Your task to perform on an android device: Go to accessibility settings Image 0: 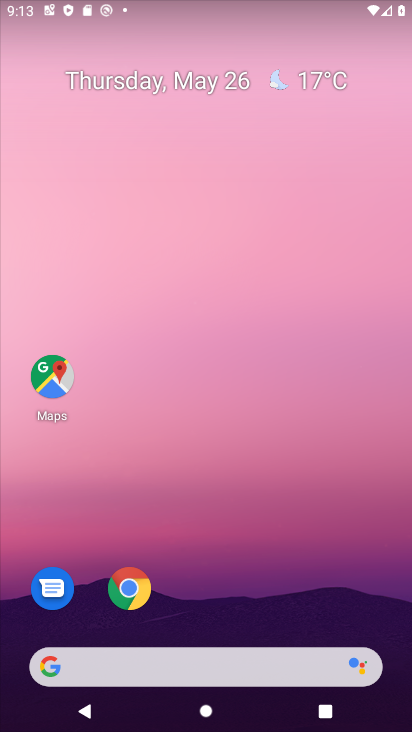
Step 0: drag from (364, 615) to (341, 168)
Your task to perform on an android device: Go to accessibility settings Image 1: 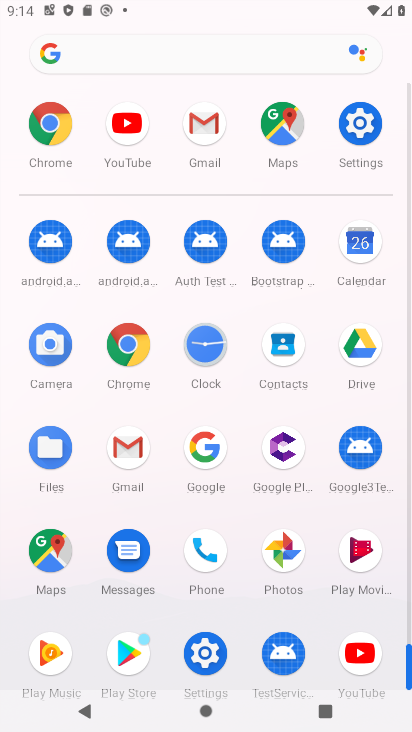
Step 1: click (199, 655)
Your task to perform on an android device: Go to accessibility settings Image 2: 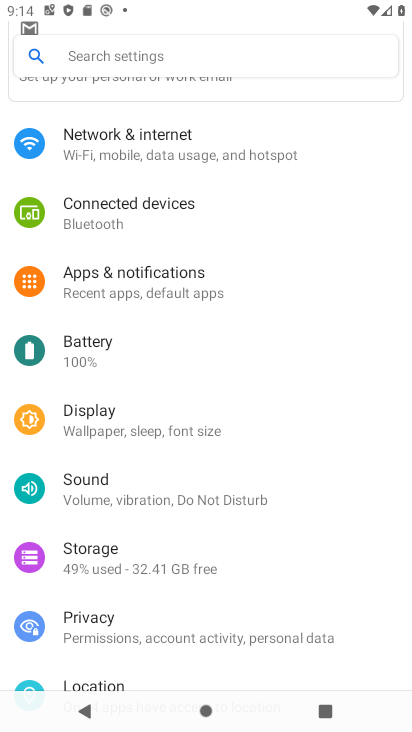
Step 2: drag from (286, 595) to (269, 195)
Your task to perform on an android device: Go to accessibility settings Image 3: 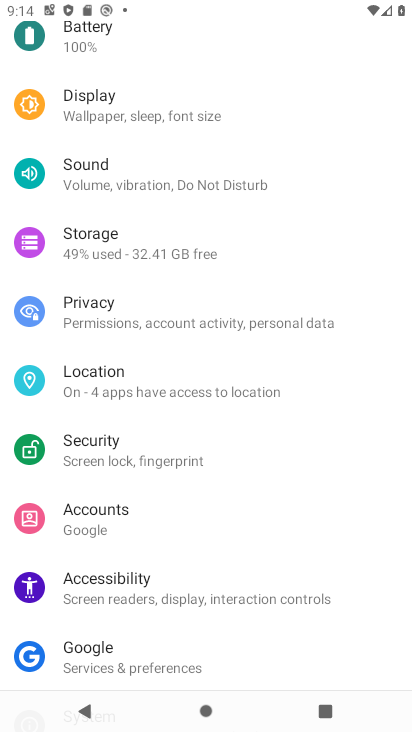
Step 3: click (102, 577)
Your task to perform on an android device: Go to accessibility settings Image 4: 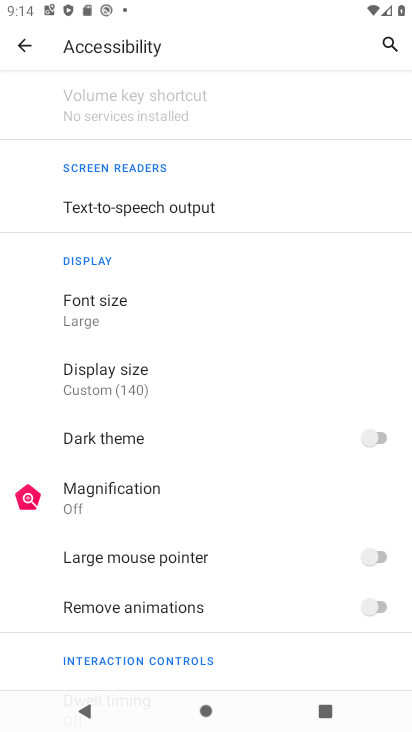
Step 4: task complete